Your task to perform on an android device: Open the Play Movies app and select the watchlist tab. Image 0: 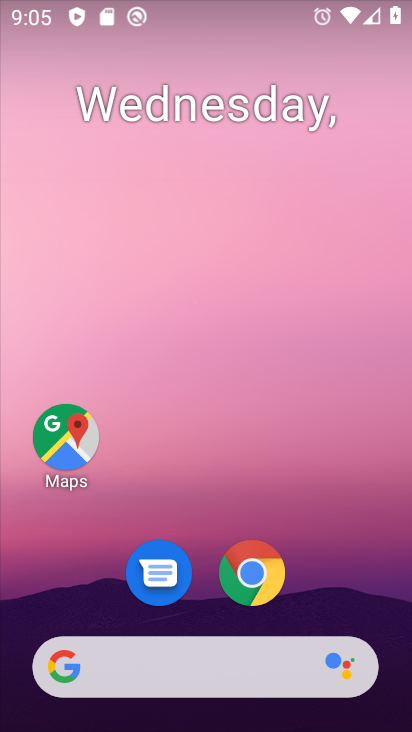
Step 0: drag from (194, 607) to (183, 70)
Your task to perform on an android device: Open the Play Movies app and select the watchlist tab. Image 1: 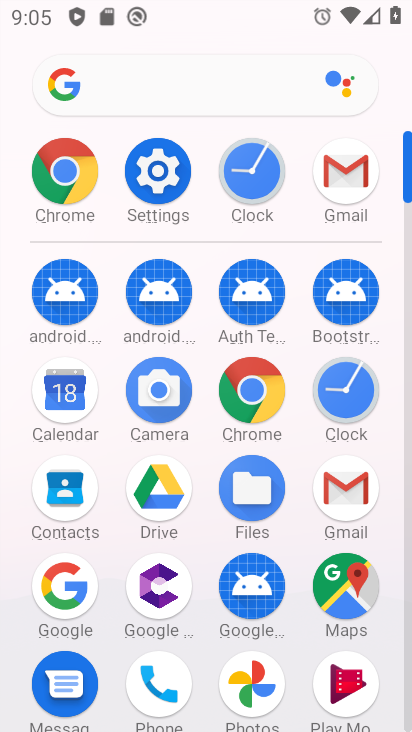
Step 1: drag from (212, 535) to (243, 105)
Your task to perform on an android device: Open the Play Movies app and select the watchlist tab. Image 2: 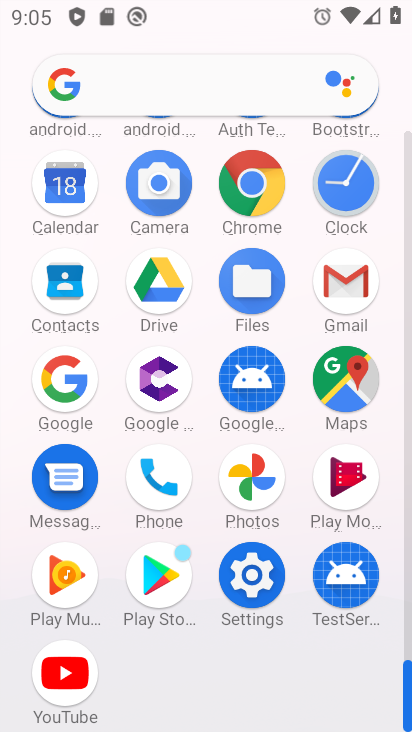
Step 2: click (353, 498)
Your task to perform on an android device: Open the Play Movies app and select the watchlist tab. Image 3: 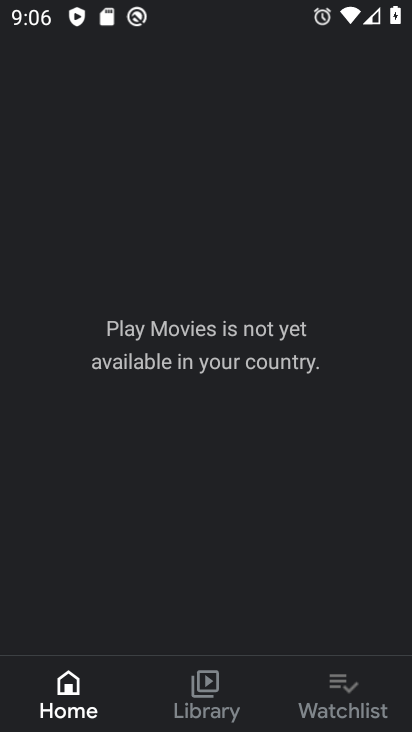
Step 3: click (372, 714)
Your task to perform on an android device: Open the Play Movies app and select the watchlist tab. Image 4: 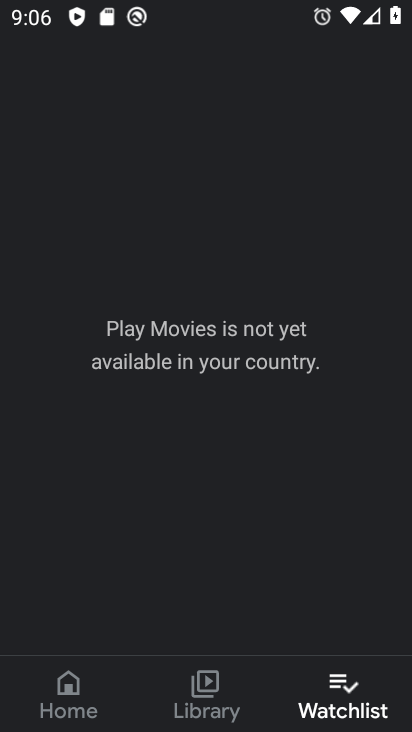
Step 4: task complete